Your task to perform on an android device: Search for sushi restaurants on Maps Image 0: 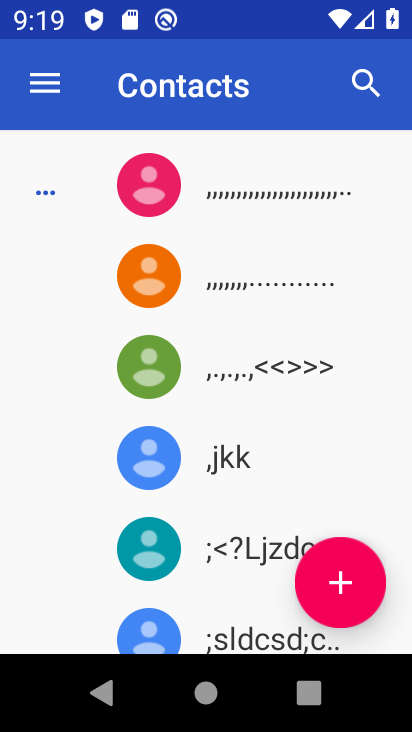
Step 0: press home button
Your task to perform on an android device: Search for sushi restaurants on Maps Image 1: 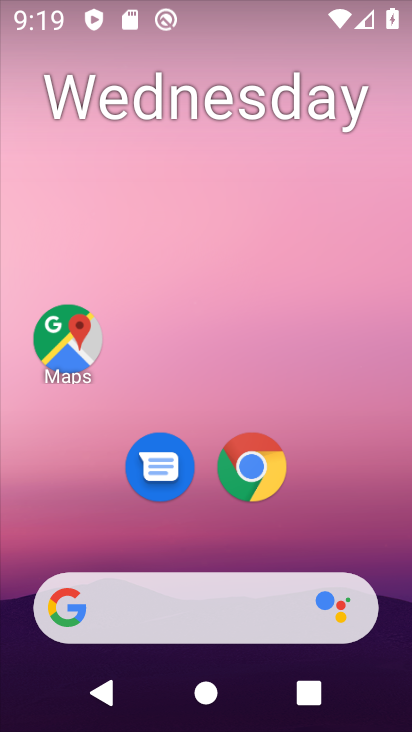
Step 1: drag from (219, 478) to (215, 111)
Your task to perform on an android device: Search for sushi restaurants on Maps Image 2: 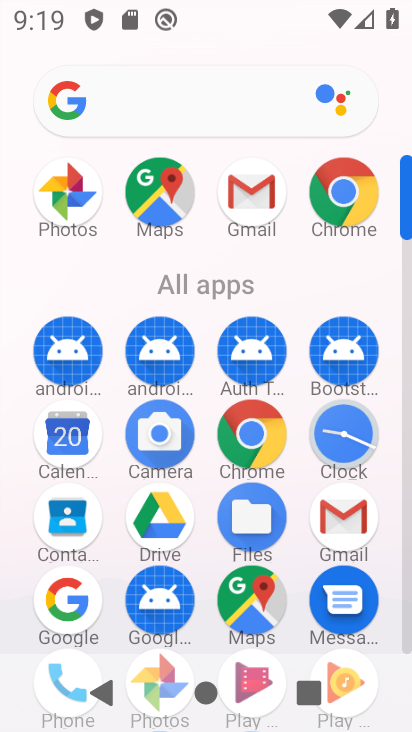
Step 2: click (249, 611)
Your task to perform on an android device: Search for sushi restaurants on Maps Image 3: 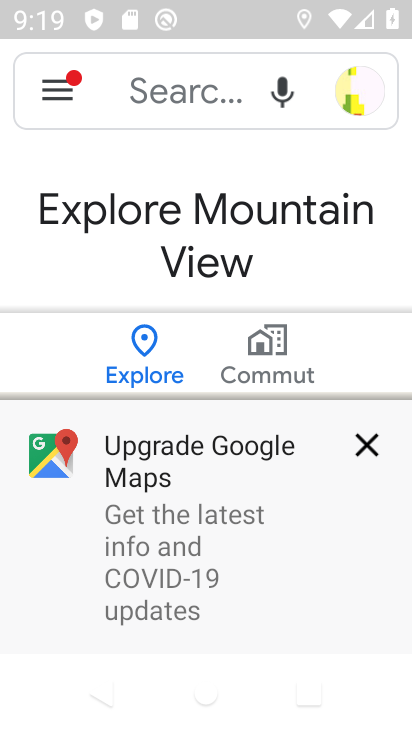
Step 3: click (158, 87)
Your task to perform on an android device: Search for sushi restaurants on Maps Image 4: 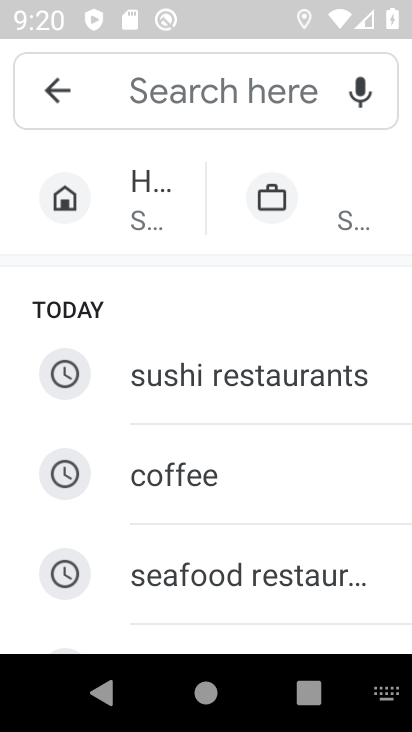
Step 4: type "sushi restaurants"
Your task to perform on an android device: Search for sushi restaurants on Maps Image 5: 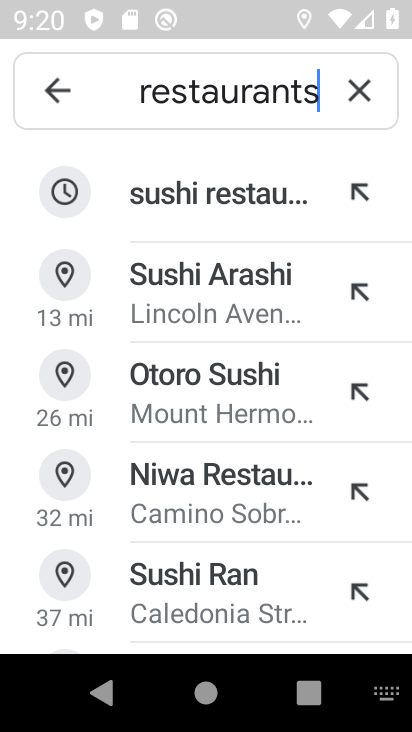
Step 5: click (173, 204)
Your task to perform on an android device: Search for sushi restaurants on Maps Image 6: 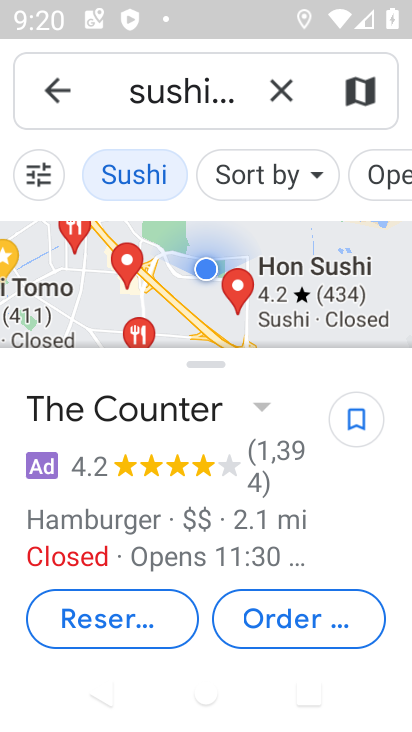
Step 6: task complete